Your task to perform on an android device: check data usage Image 0: 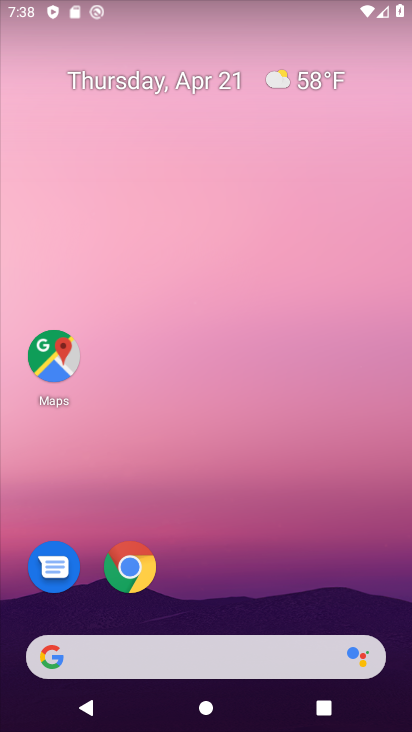
Step 0: drag from (216, 586) to (246, 47)
Your task to perform on an android device: check data usage Image 1: 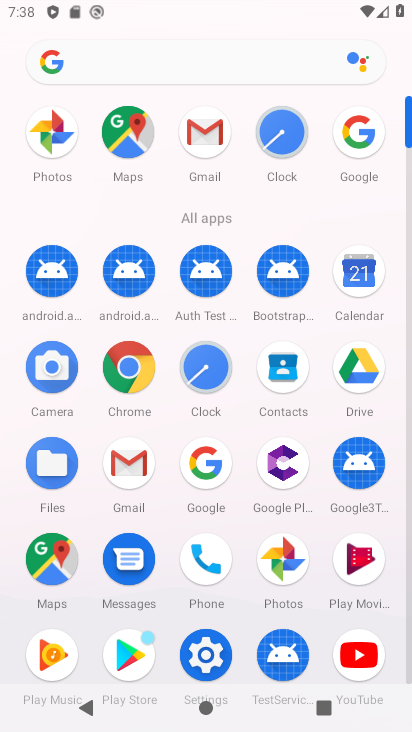
Step 1: click (207, 656)
Your task to perform on an android device: check data usage Image 2: 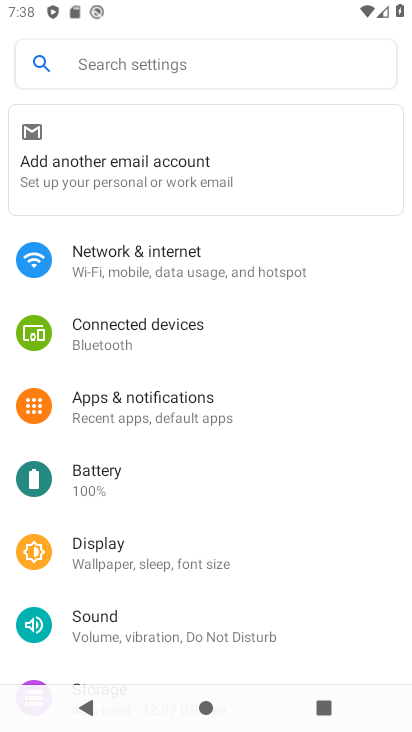
Step 2: click (244, 267)
Your task to perform on an android device: check data usage Image 3: 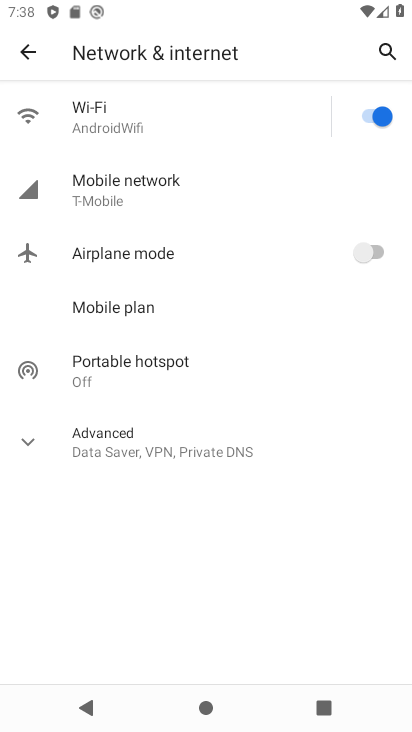
Step 3: click (160, 179)
Your task to perform on an android device: check data usage Image 4: 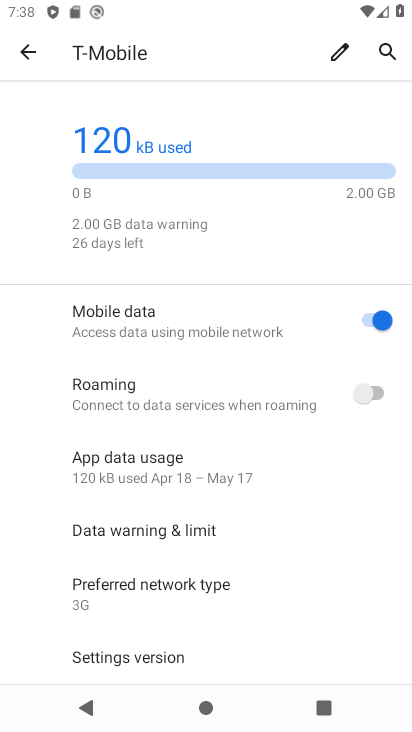
Step 4: click (160, 179)
Your task to perform on an android device: check data usage Image 5: 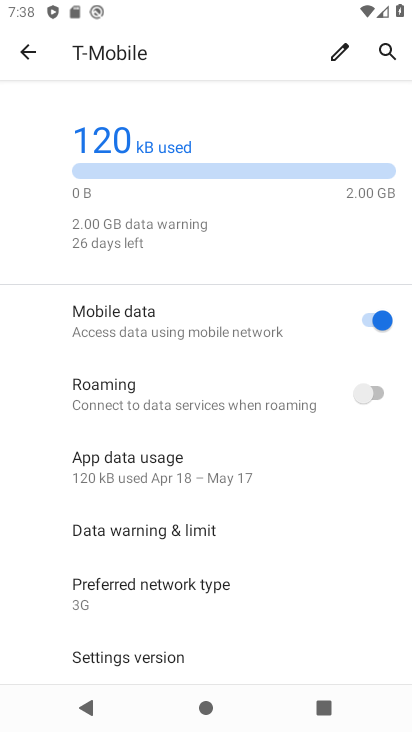
Step 5: task complete